Your task to perform on an android device: turn on notifications settings in the gmail app Image 0: 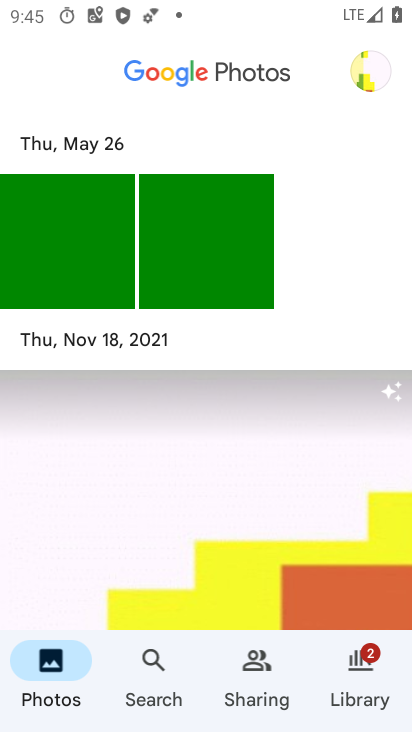
Step 0: drag from (210, 605) to (265, 273)
Your task to perform on an android device: turn on notifications settings in the gmail app Image 1: 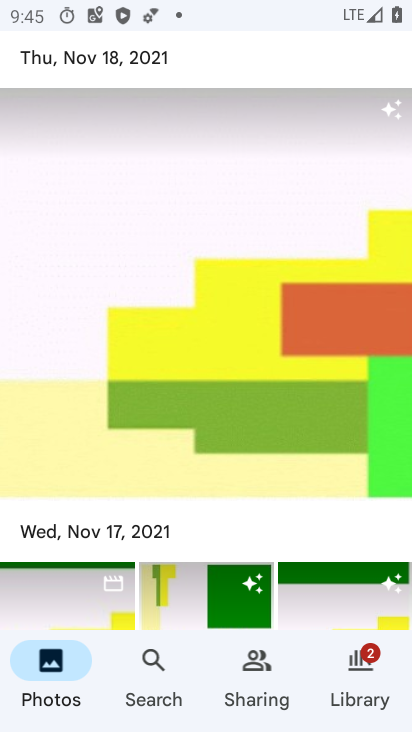
Step 1: drag from (327, 247) to (381, 629)
Your task to perform on an android device: turn on notifications settings in the gmail app Image 2: 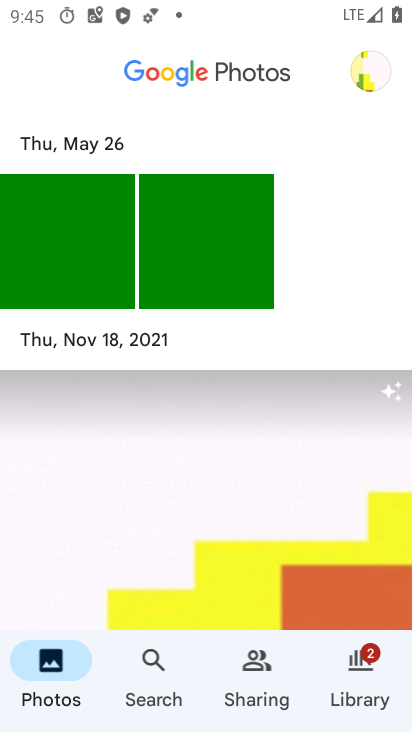
Step 2: press home button
Your task to perform on an android device: turn on notifications settings in the gmail app Image 3: 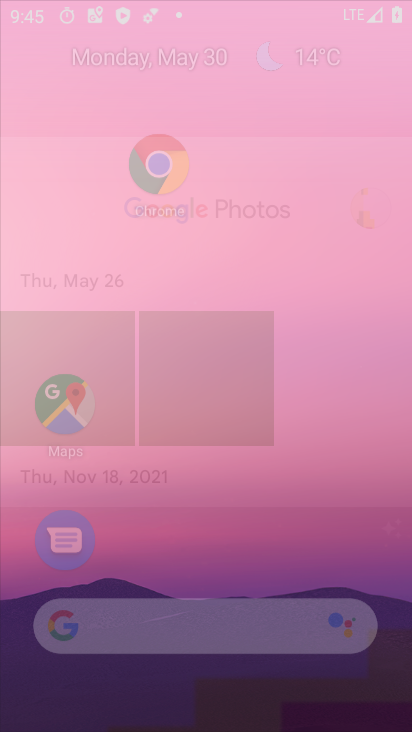
Step 3: drag from (251, 504) to (347, 149)
Your task to perform on an android device: turn on notifications settings in the gmail app Image 4: 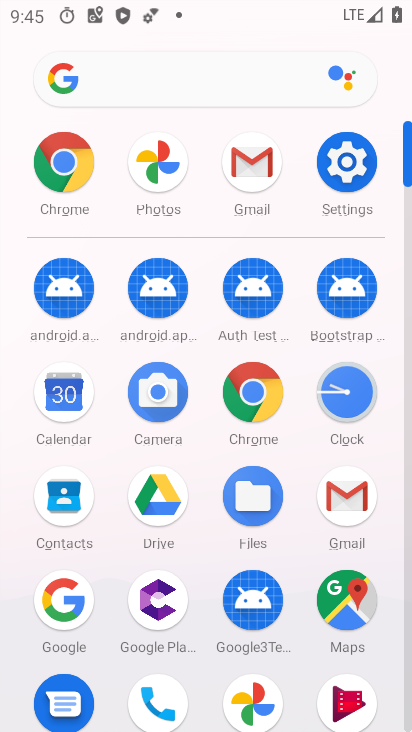
Step 4: click (328, 520)
Your task to perform on an android device: turn on notifications settings in the gmail app Image 5: 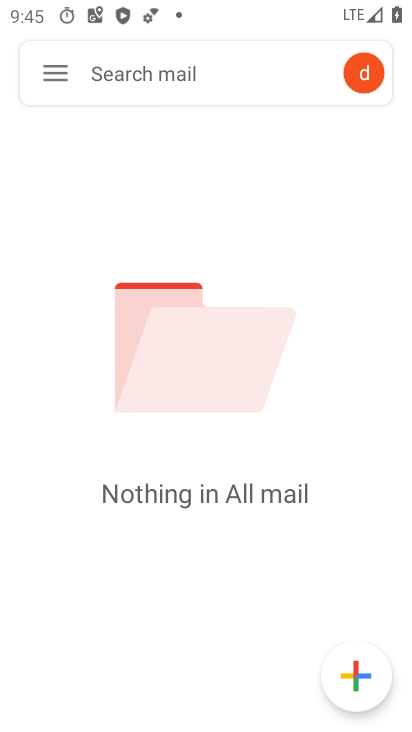
Step 5: click (54, 85)
Your task to perform on an android device: turn on notifications settings in the gmail app Image 6: 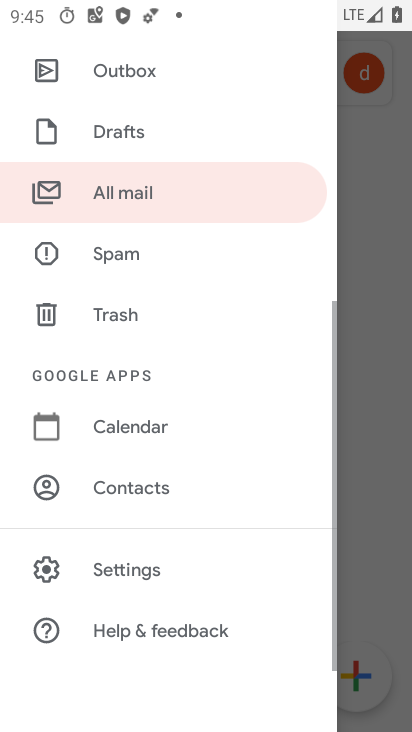
Step 6: drag from (133, 568) to (278, 17)
Your task to perform on an android device: turn on notifications settings in the gmail app Image 7: 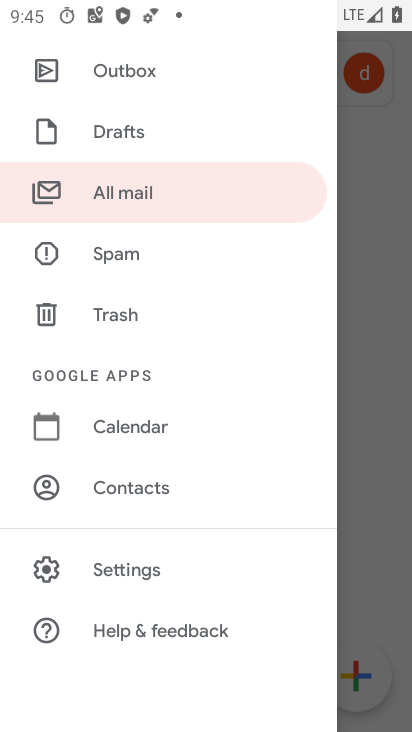
Step 7: click (134, 579)
Your task to perform on an android device: turn on notifications settings in the gmail app Image 8: 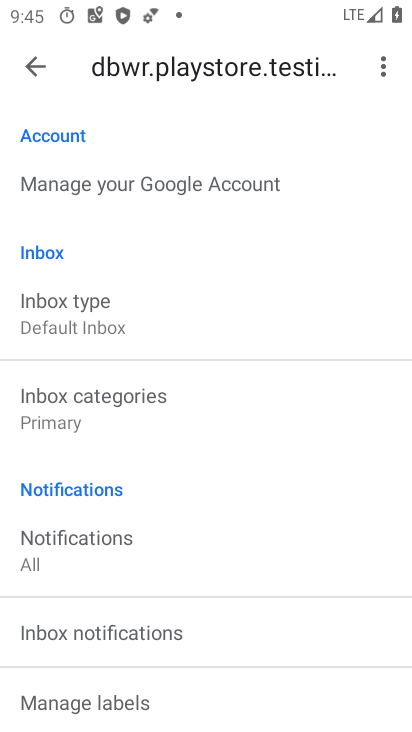
Step 8: drag from (141, 567) to (236, 96)
Your task to perform on an android device: turn on notifications settings in the gmail app Image 9: 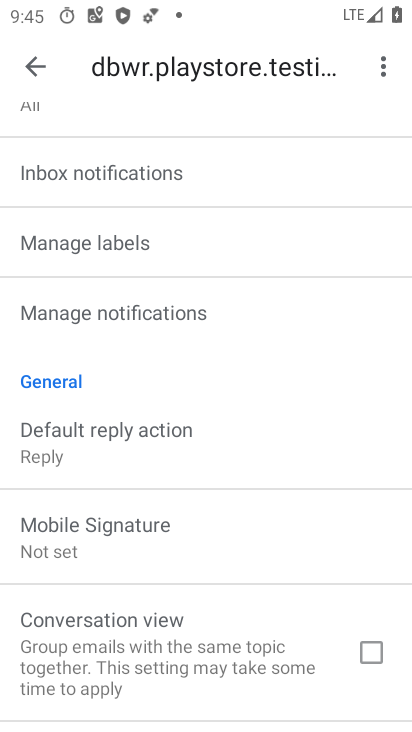
Step 9: click (101, 330)
Your task to perform on an android device: turn on notifications settings in the gmail app Image 10: 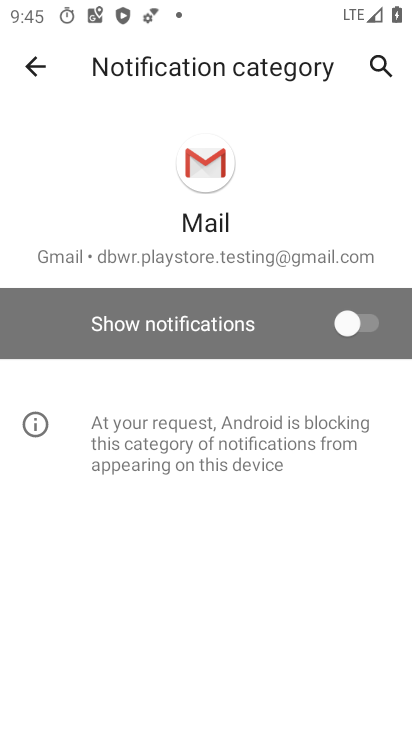
Step 10: click (334, 326)
Your task to perform on an android device: turn on notifications settings in the gmail app Image 11: 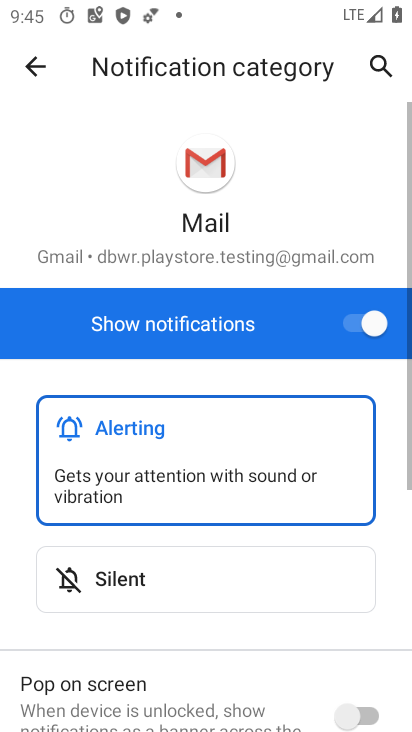
Step 11: task complete